Your task to perform on an android device: View the shopping cart on costco.com. Search for "usb-c to usb-a" on costco.com, select the first entry, add it to the cart, then select checkout. Image 0: 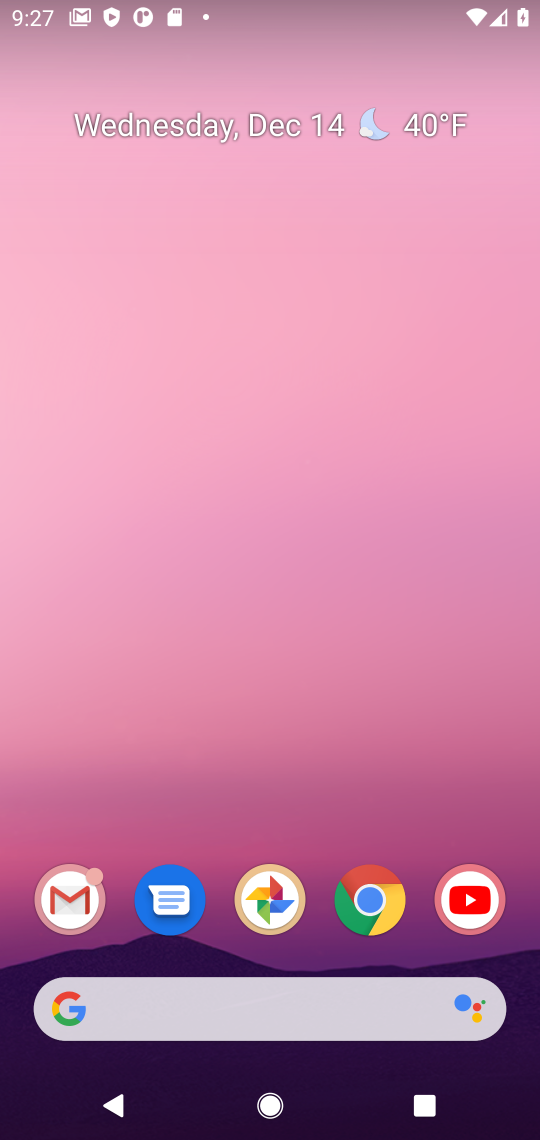
Step 0: click (369, 912)
Your task to perform on an android device: View the shopping cart on costco.com. Search for "usb-c to usb-a" on costco.com, select the first entry, add it to the cart, then select checkout. Image 1: 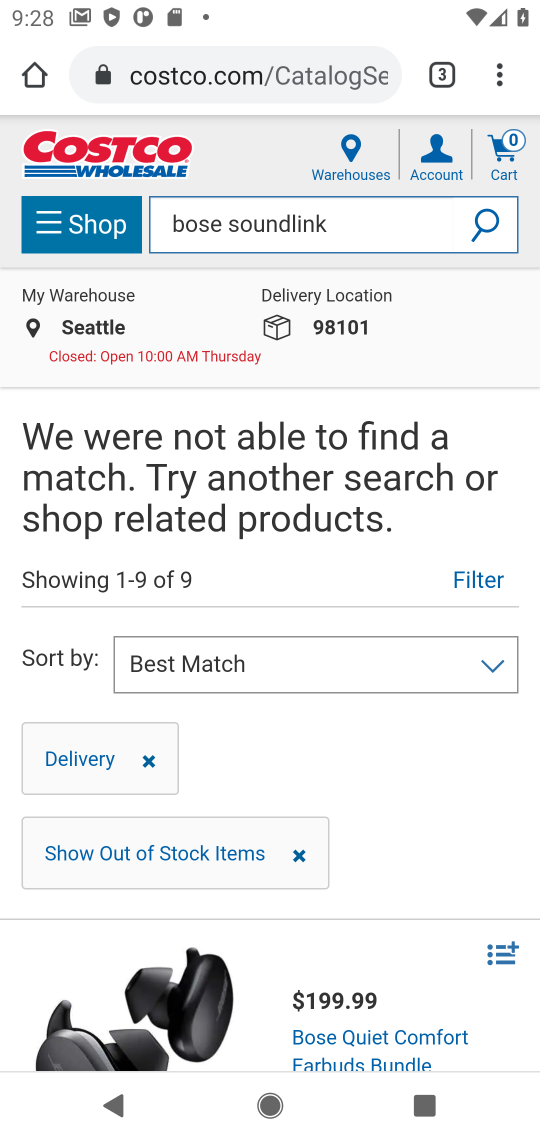
Step 1: click (509, 164)
Your task to perform on an android device: View the shopping cart on costco.com. Search for "usb-c to usb-a" on costco.com, select the first entry, add it to the cart, then select checkout. Image 2: 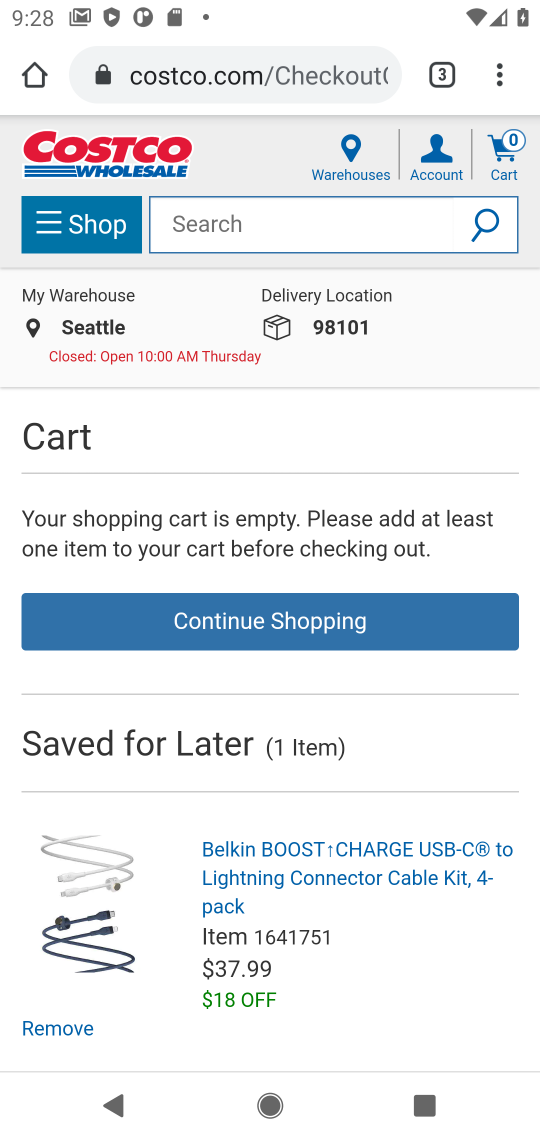
Step 2: click (195, 228)
Your task to perform on an android device: View the shopping cart on costco.com. Search for "usb-c to usb-a" on costco.com, select the first entry, add it to the cart, then select checkout. Image 3: 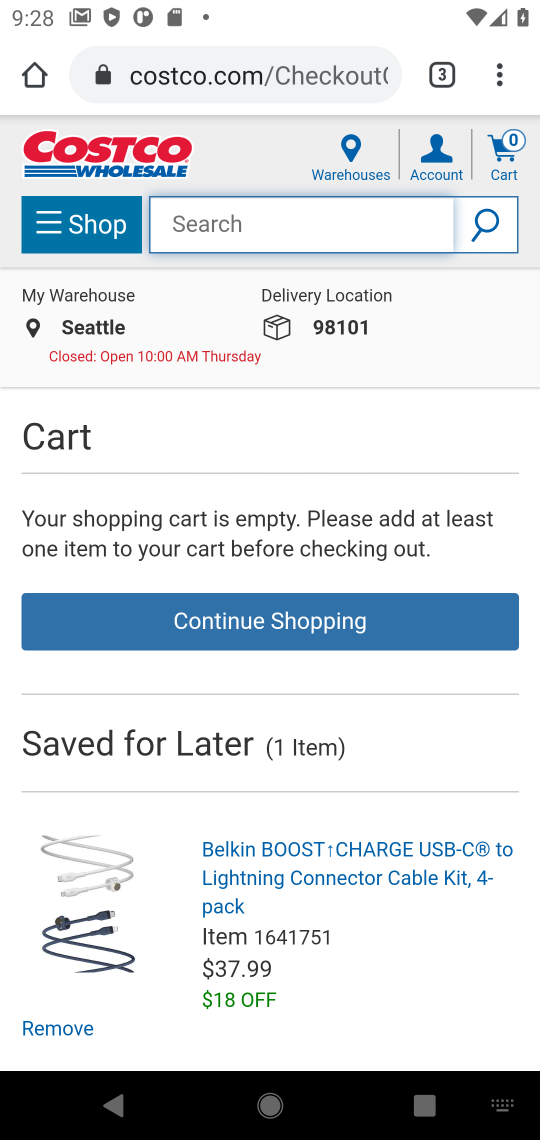
Step 3: type "usb-c to usb-a"
Your task to perform on an android device: View the shopping cart on costco.com. Search for "usb-c to usb-a" on costco.com, select the first entry, add it to the cart, then select checkout. Image 4: 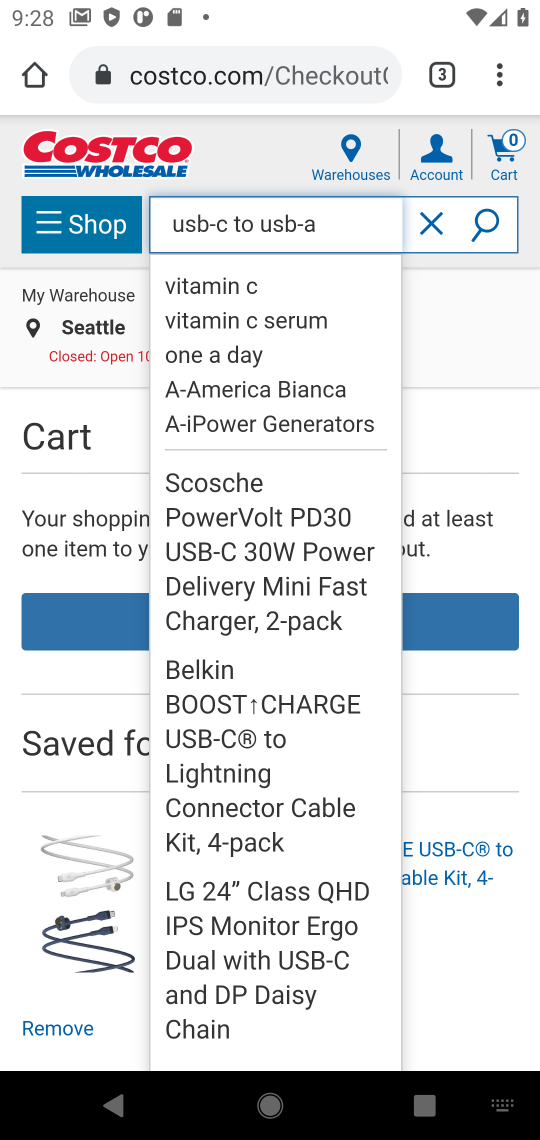
Step 4: click (495, 220)
Your task to perform on an android device: View the shopping cart on costco.com. Search for "usb-c to usb-a" on costco.com, select the first entry, add it to the cart, then select checkout. Image 5: 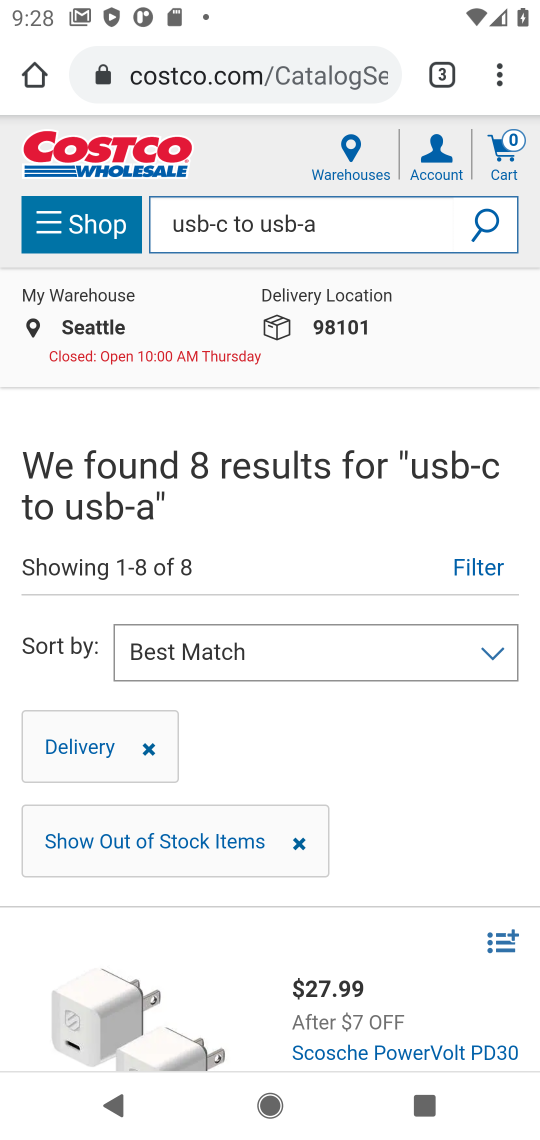
Step 5: drag from (247, 745) to (252, 357)
Your task to perform on an android device: View the shopping cart on costco.com. Search for "usb-c to usb-a" on costco.com, select the first entry, add it to the cart, then select checkout. Image 6: 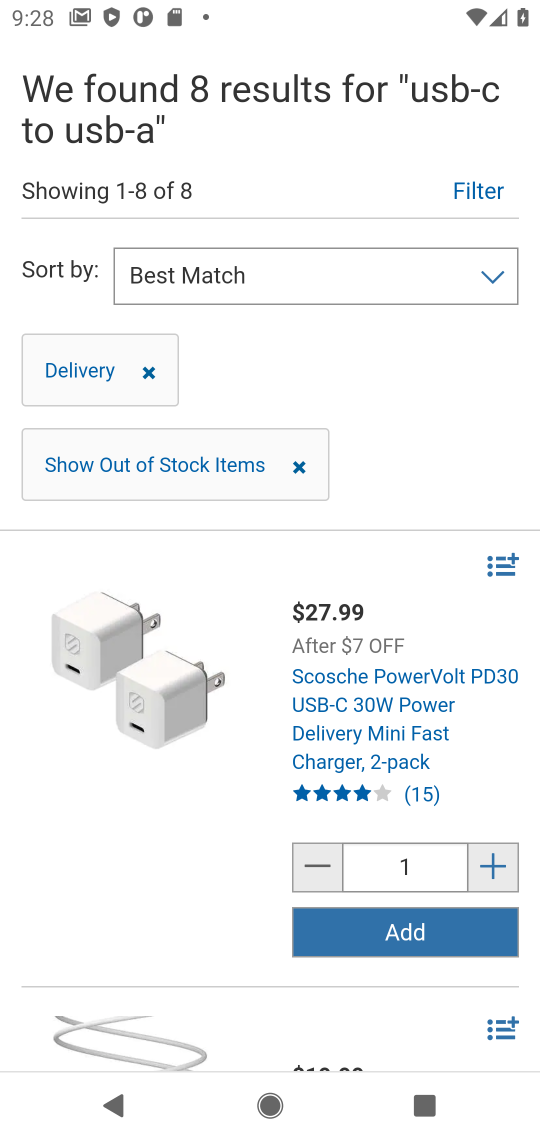
Step 6: click (365, 739)
Your task to perform on an android device: View the shopping cart on costco.com. Search for "usb-c to usb-a" on costco.com, select the first entry, add it to the cart, then select checkout. Image 7: 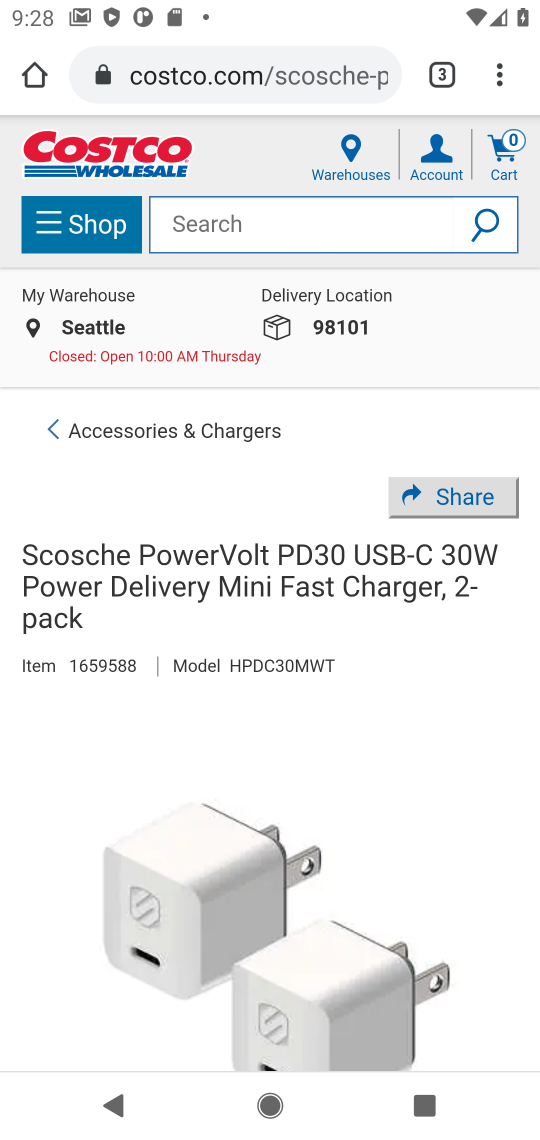
Step 7: task complete